Your task to perform on an android device: change the upload size in google photos Image 0: 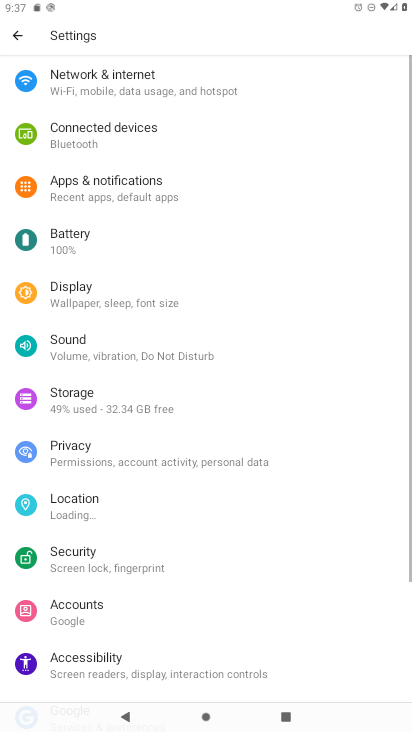
Step 0: drag from (362, 644) to (305, 230)
Your task to perform on an android device: change the upload size in google photos Image 1: 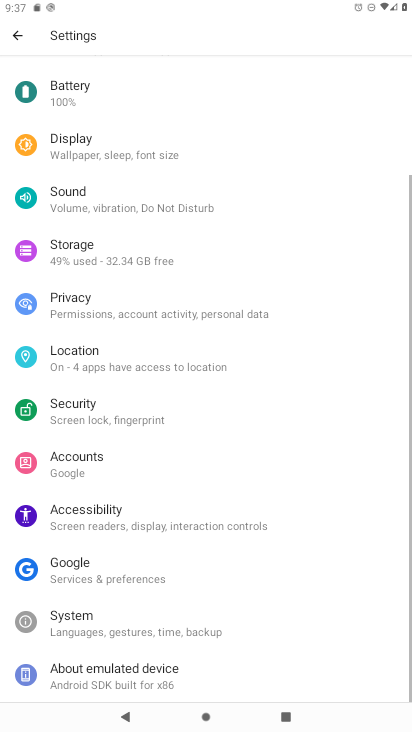
Step 1: press home button
Your task to perform on an android device: change the upload size in google photos Image 2: 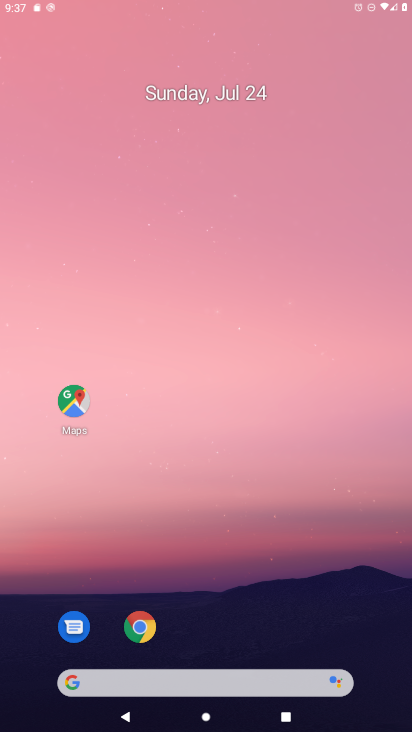
Step 2: drag from (362, 663) to (67, 86)
Your task to perform on an android device: change the upload size in google photos Image 3: 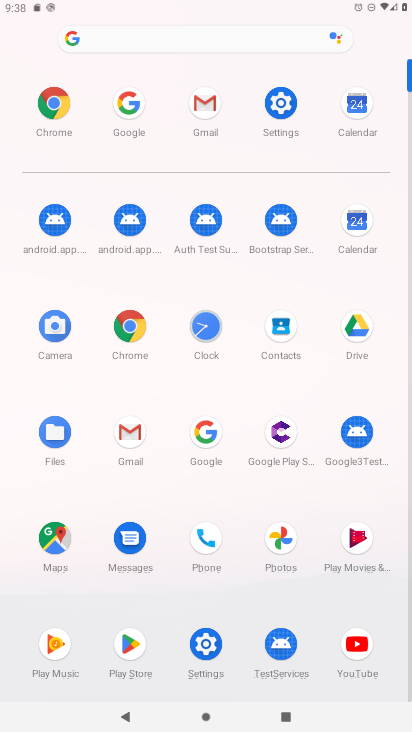
Step 3: click (284, 540)
Your task to perform on an android device: change the upload size in google photos Image 4: 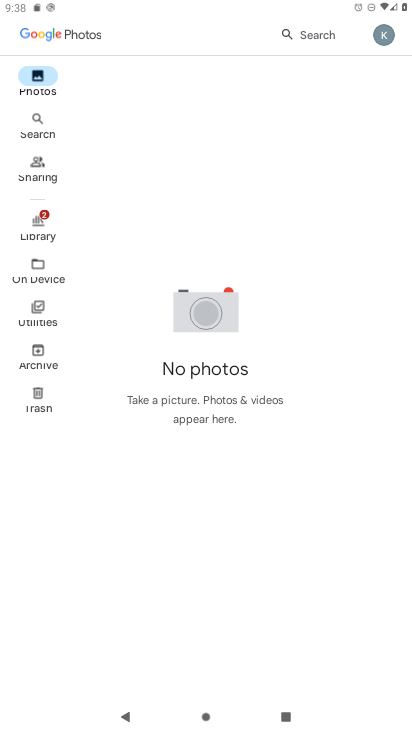
Step 4: click (383, 38)
Your task to perform on an android device: change the upload size in google photos Image 5: 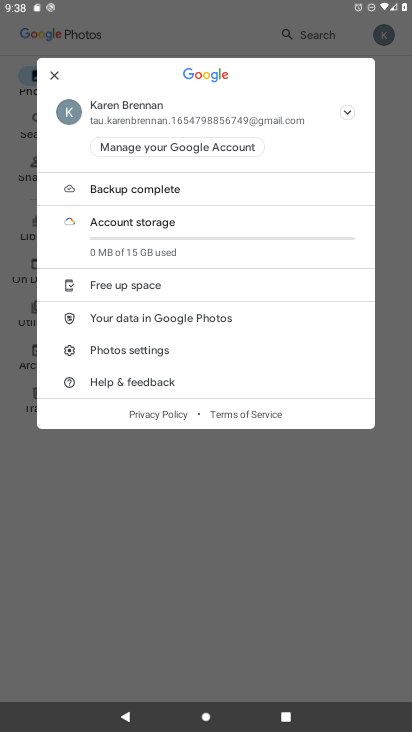
Step 5: click (121, 345)
Your task to perform on an android device: change the upload size in google photos Image 6: 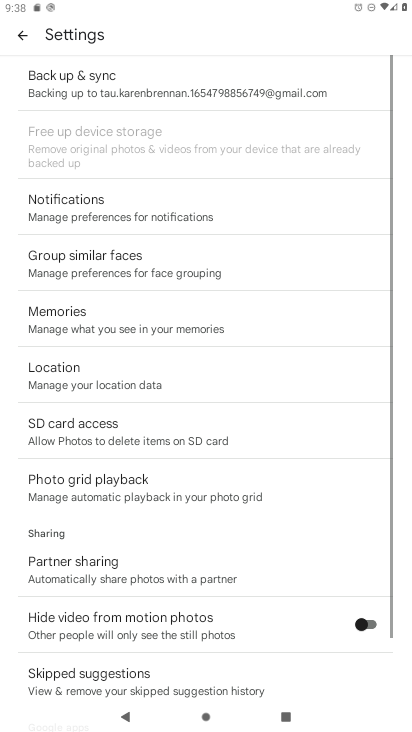
Step 6: click (136, 90)
Your task to perform on an android device: change the upload size in google photos Image 7: 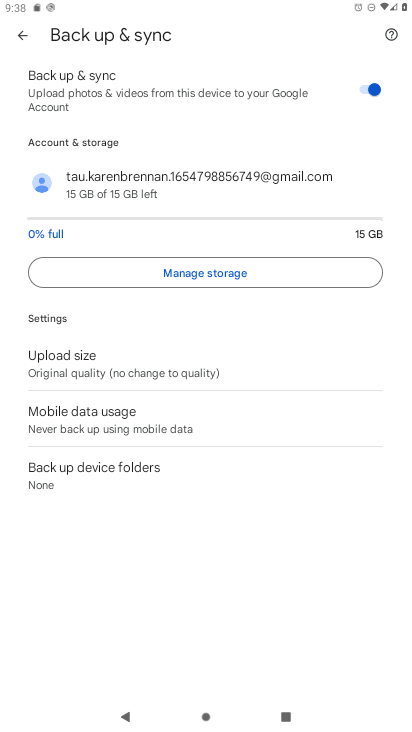
Step 7: click (110, 381)
Your task to perform on an android device: change the upload size in google photos Image 8: 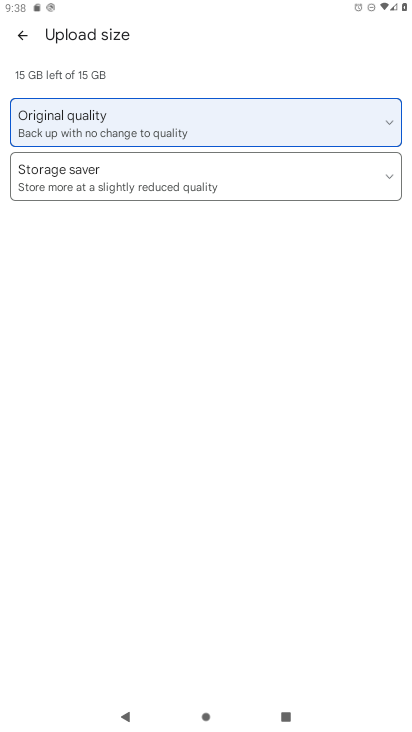
Step 8: click (171, 188)
Your task to perform on an android device: change the upload size in google photos Image 9: 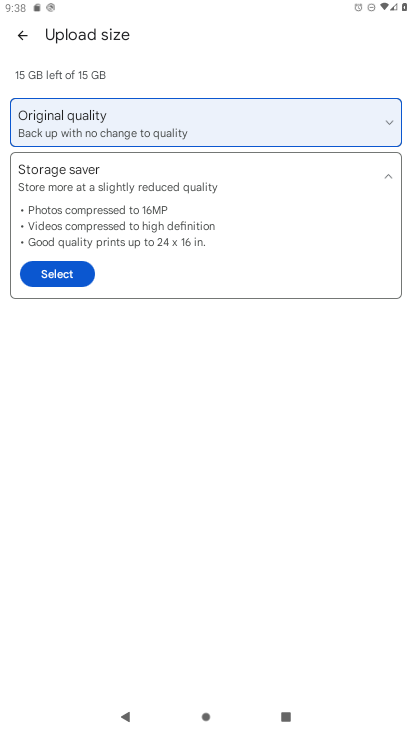
Step 9: click (64, 270)
Your task to perform on an android device: change the upload size in google photos Image 10: 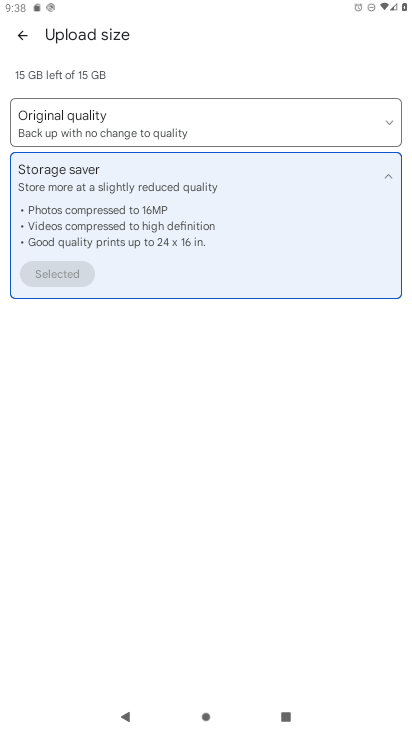
Step 10: task complete